Your task to perform on an android device: What's on my calendar today? Image 0: 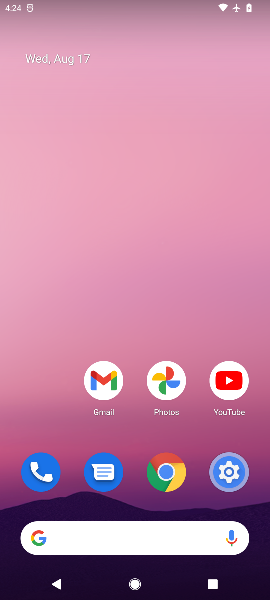
Step 0: drag from (132, 504) to (180, 176)
Your task to perform on an android device: What's on my calendar today? Image 1: 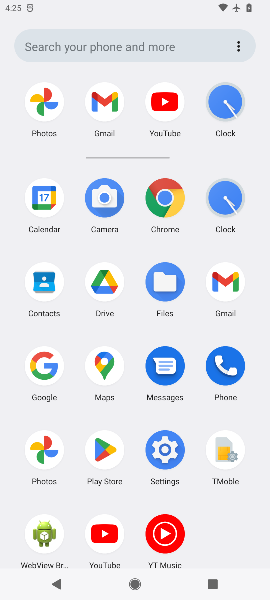
Step 1: click (35, 199)
Your task to perform on an android device: What's on my calendar today? Image 2: 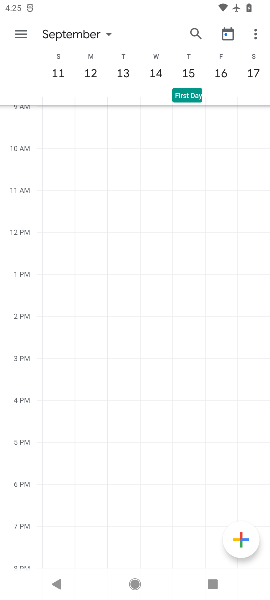
Step 2: click (53, 32)
Your task to perform on an android device: What's on my calendar today? Image 3: 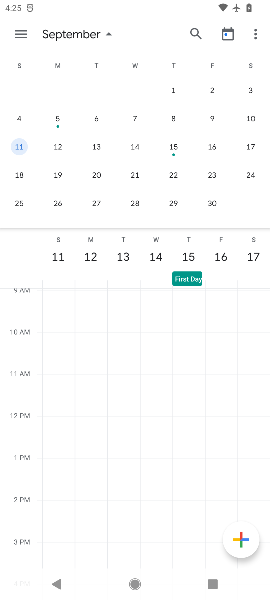
Step 3: drag from (69, 158) to (267, 162)
Your task to perform on an android device: What's on my calendar today? Image 4: 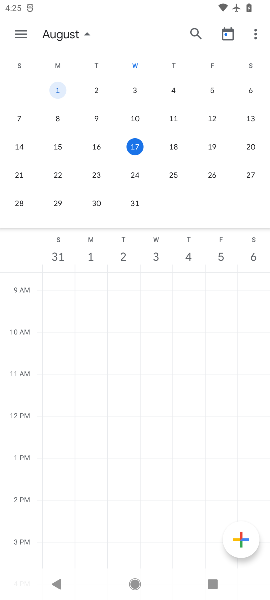
Step 4: drag from (37, 125) to (261, 147)
Your task to perform on an android device: What's on my calendar today? Image 5: 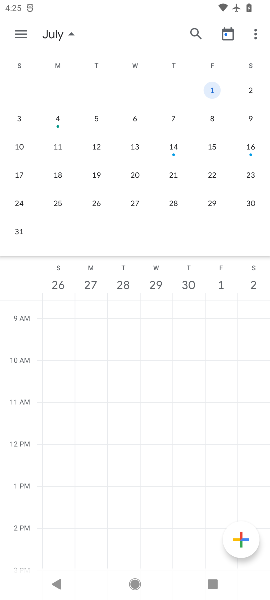
Step 5: click (17, 55)
Your task to perform on an android device: What's on my calendar today? Image 6: 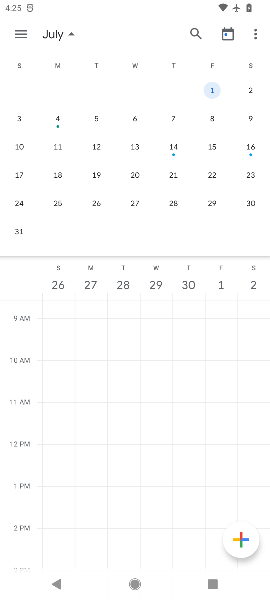
Step 6: drag from (235, 146) to (24, 123)
Your task to perform on an android device: What's on my calendar today? Image 7: 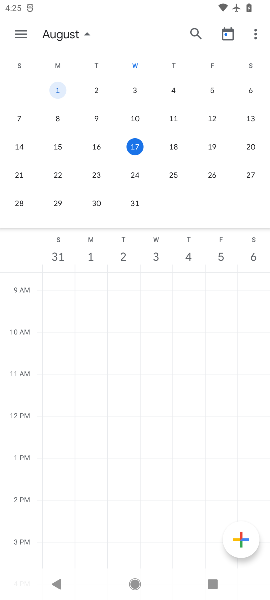
Step 7: click (134, 147)
Your task to perform on an android device: What's on my calendar today? Image 8: 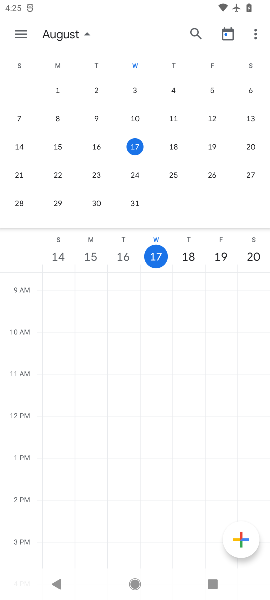
Step 8: click (20, 33)
Your task to perform on an android device: What's on my calendar today? Image 9: 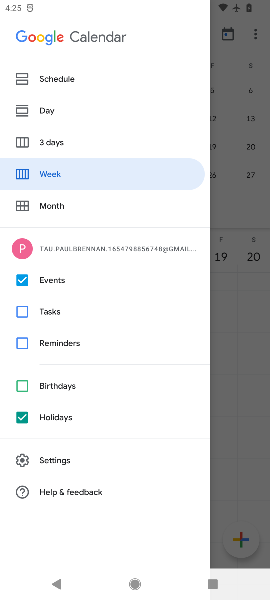
Step 9: click (56, 105)
Your task to perform on an android device: What's on my calendar today? Image 10: 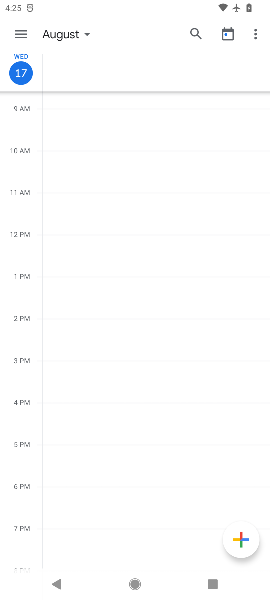
Step 10: task complete